Your task to perform on an android device: Go to Android settings Image 0: 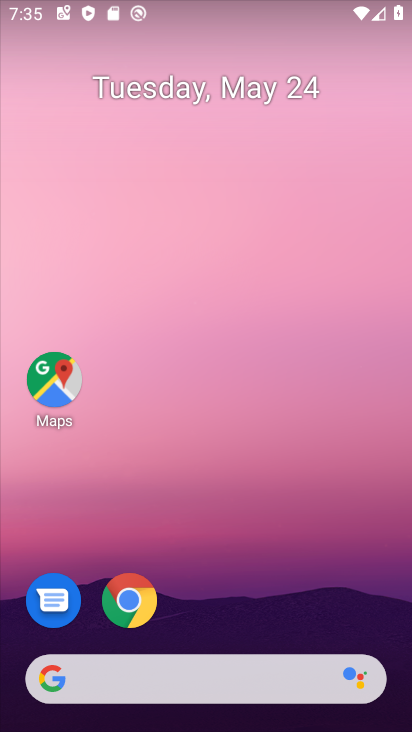
Step 0: drag from (236, 563) to (282, 76)
Your task to perform on an android device: Go to Android settings Image 1: 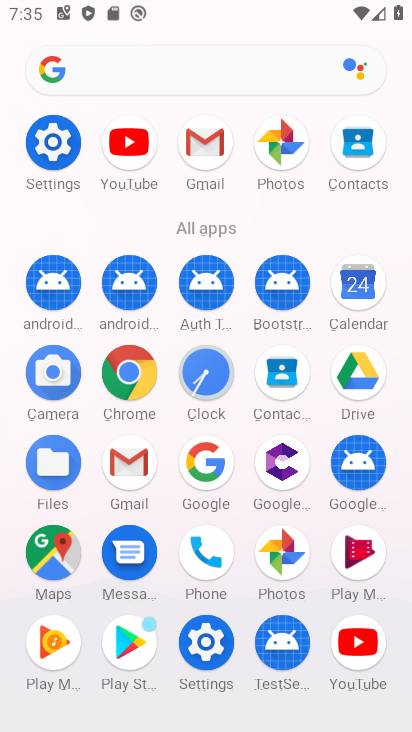
Step 1: click (86, 157)
Your task to perform on an android device: Go to Android settings Image 2: 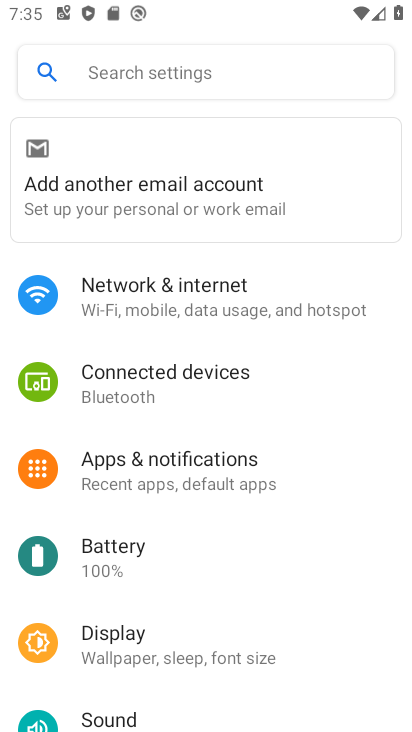
Step 2: drag from (141, 688) to (217, 113)
Your task to perform on an android device: Go to Android settings Image 3: 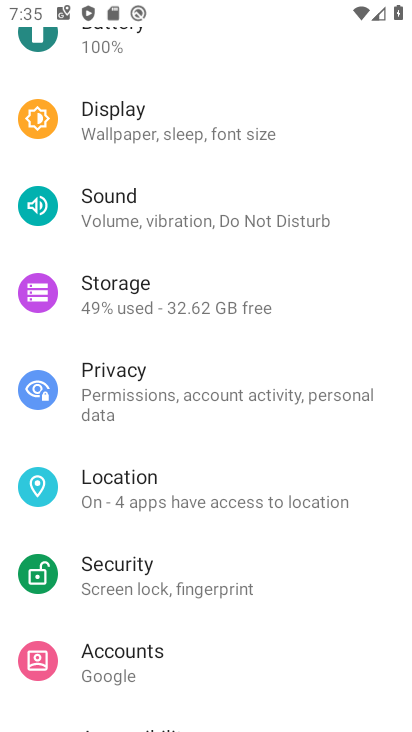
Step 3: drag from (164, 579) to (287, 16)
Your task to perform on an android device: Go to Android settings Image 4: 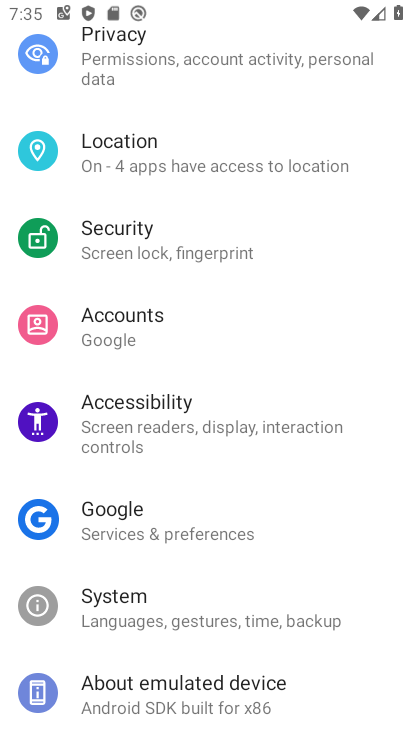
Step 4: click (180, 693)
Your task to perform on an android device: Go to Android settings Image 5: 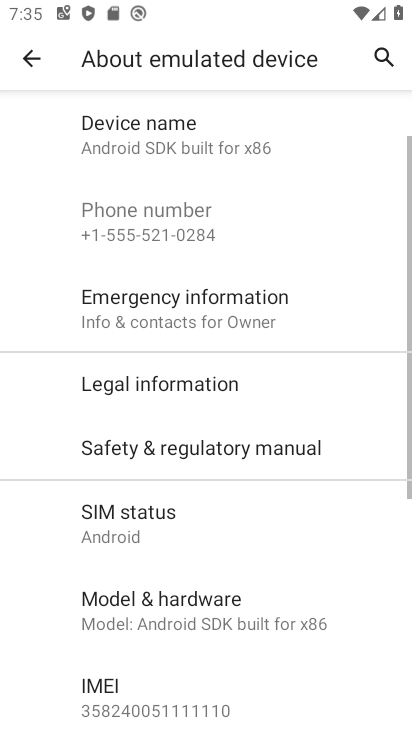
Step 5: drag from (175, 688) to (285, 67)
Your task to perform on an android device: Go to Android settings Image 6: 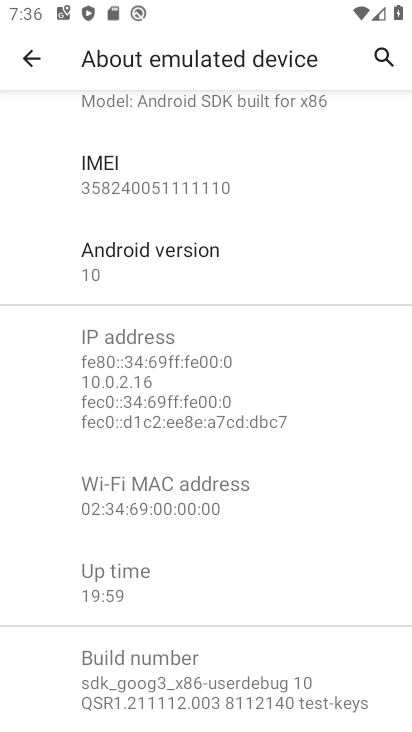
Step 6: click (159, 263)
Your task to perform on an android device: Go to Android settings Image 7: 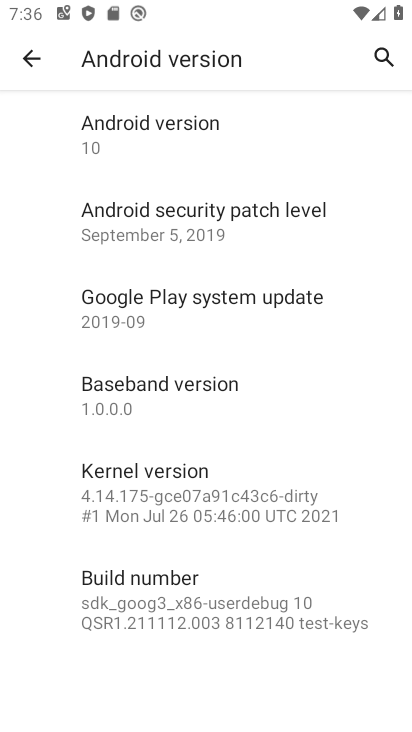
Step 7: task complete